Your task to perform on an android device: turn on sleep mode Image 0: 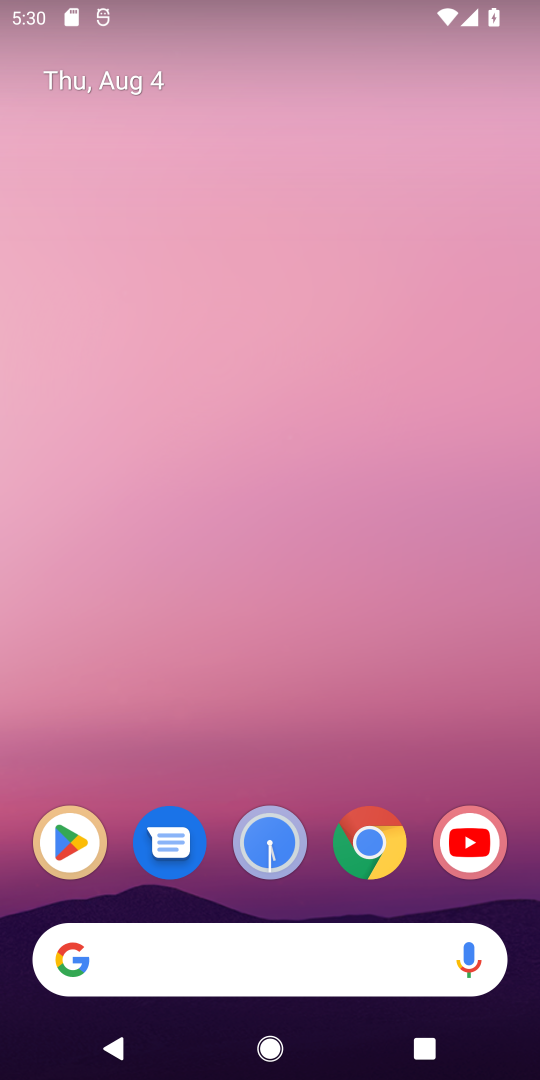
Step 0: drag from (339, 642) to (328, 285)
Your task to perform on an android device: turn on sleep mode Image 1: 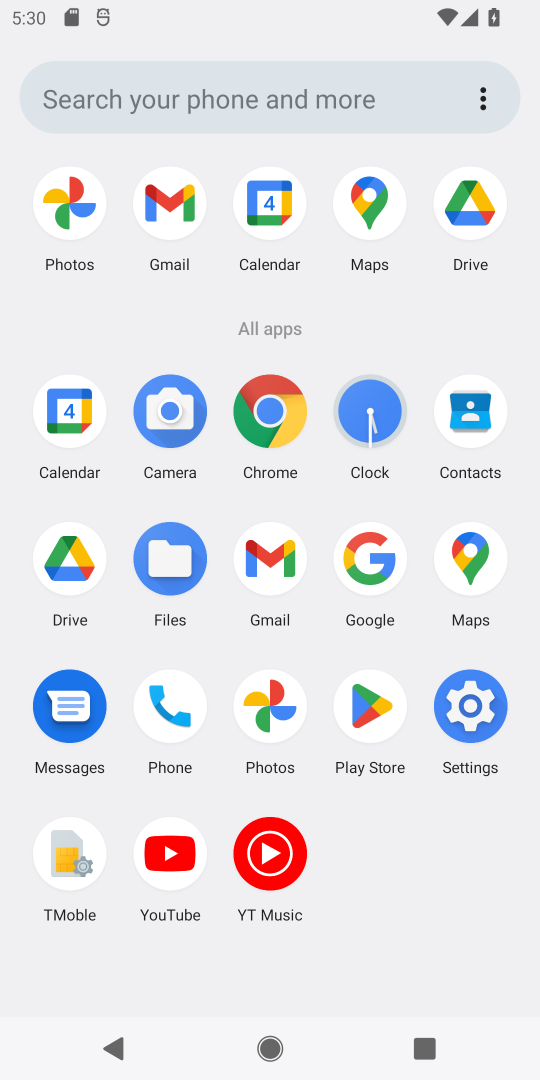
Step 1: drag from (472, 711) to (171, 333)
Your task to perform on an android device: turn on sleep mode Image 2: 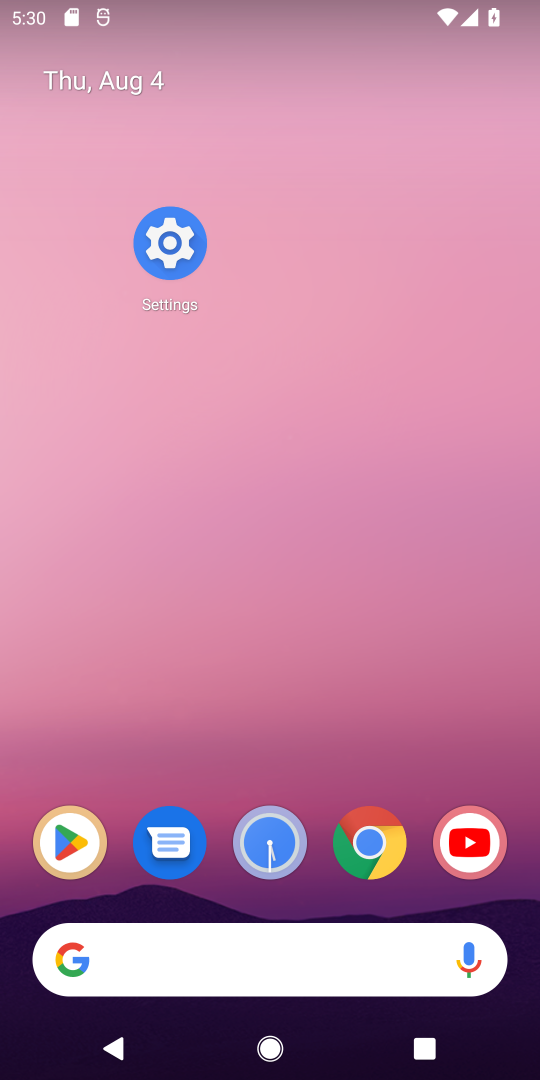
Step 2: click (180, 235)
Your task to perform on an android device: turn on sleep mode Image 3: 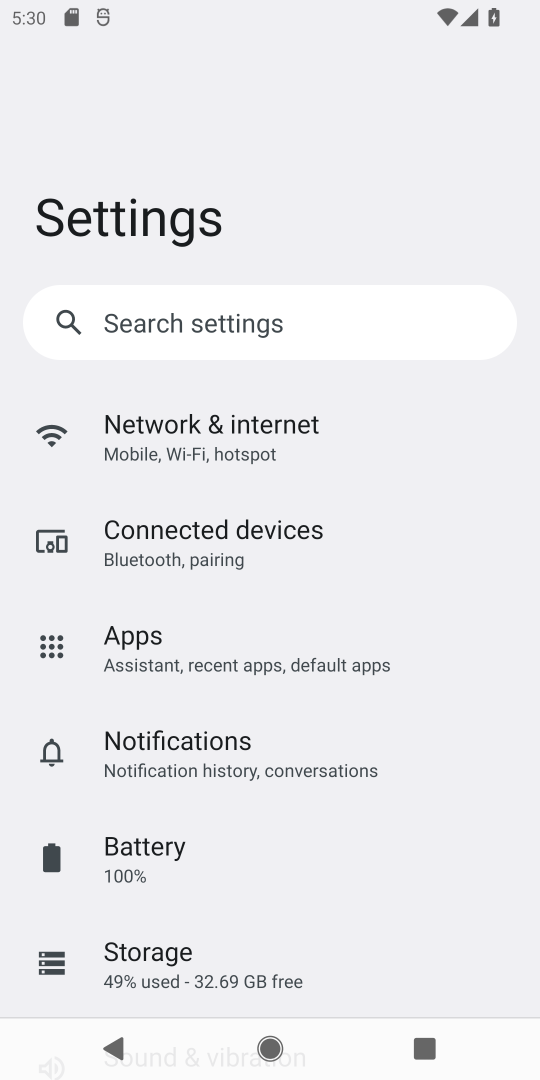
Step 3: drag from (265, 732) to (285, 415)
Your task to perform on an android device: turn on sleep mode Image 4: 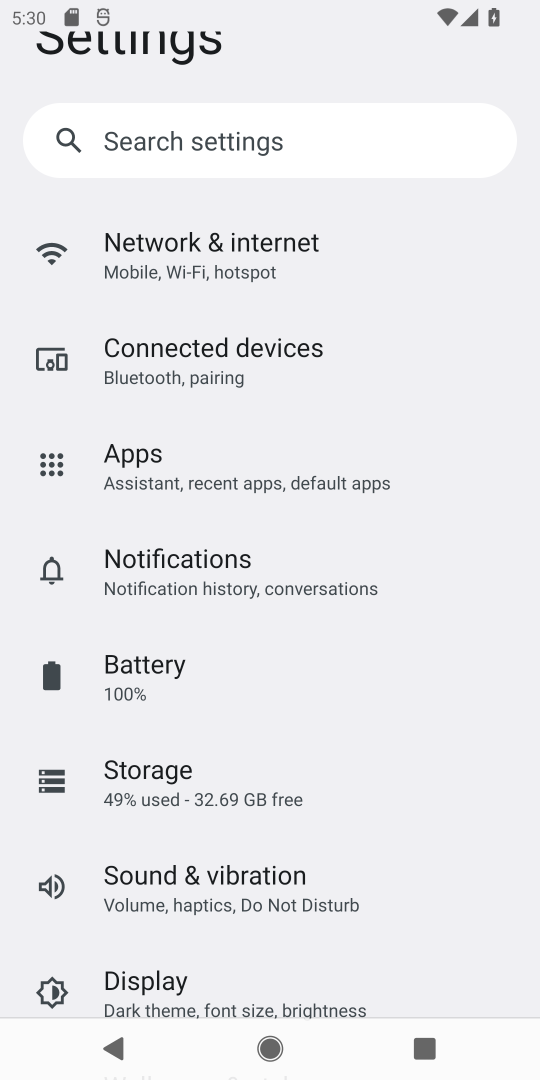
Step 4: drag from (307, 771) to (324, 404)
Your task to perform on an android device: turn on sleep mode Image 5: 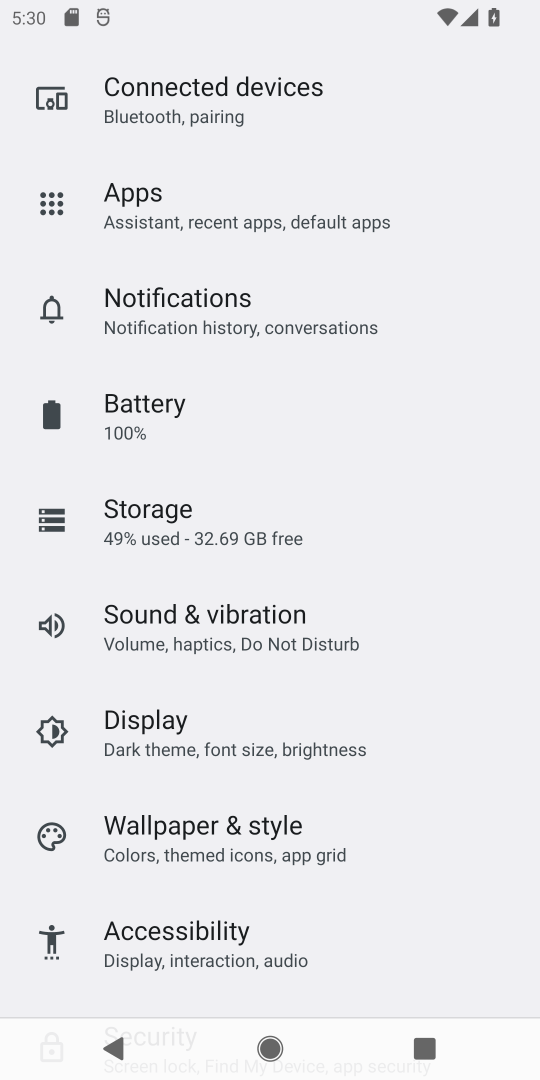
Step 5: drag from (336, 572) to (351, 272)
Your task to perform on an android device: turn on sleep mode Image 6: 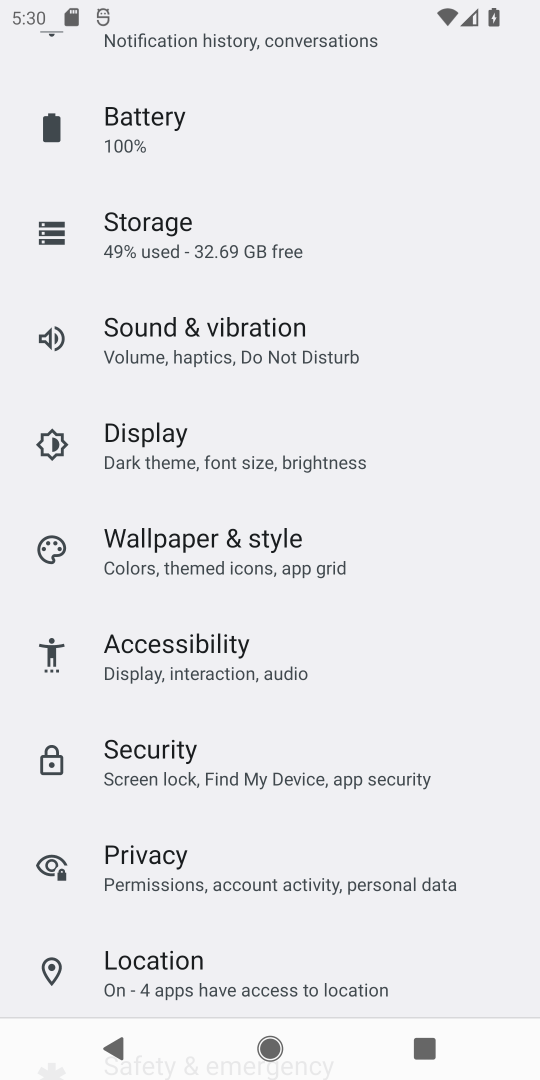
Step 6: drag from (353, 270) to (396, 478)
Your task to perform on an android device: turn on sleep mode Image 7: 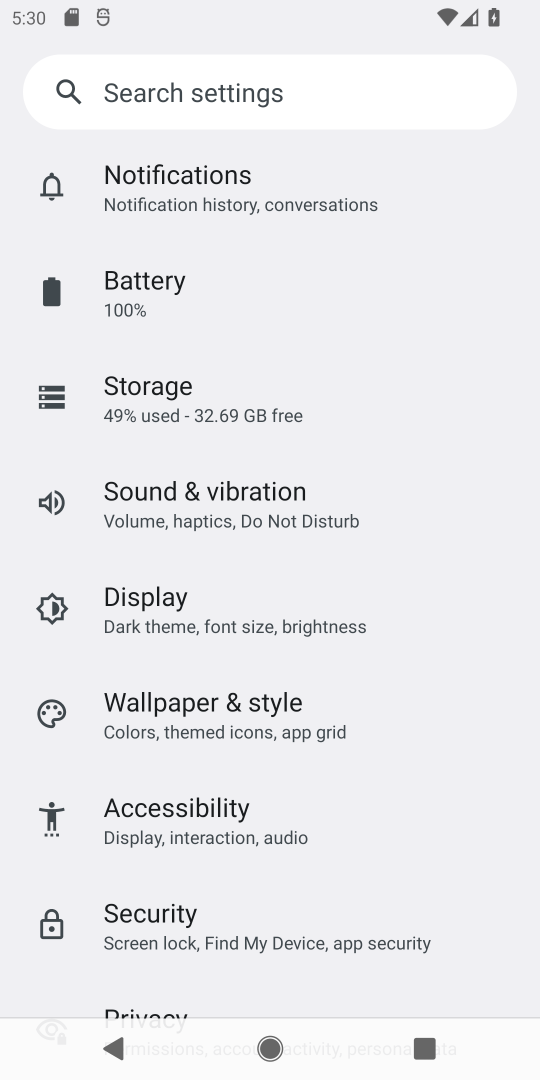
Step 7: drag from (355, 231) to (335, 619)
Your task to perform on an android device: turn on sleep mode Image 8: 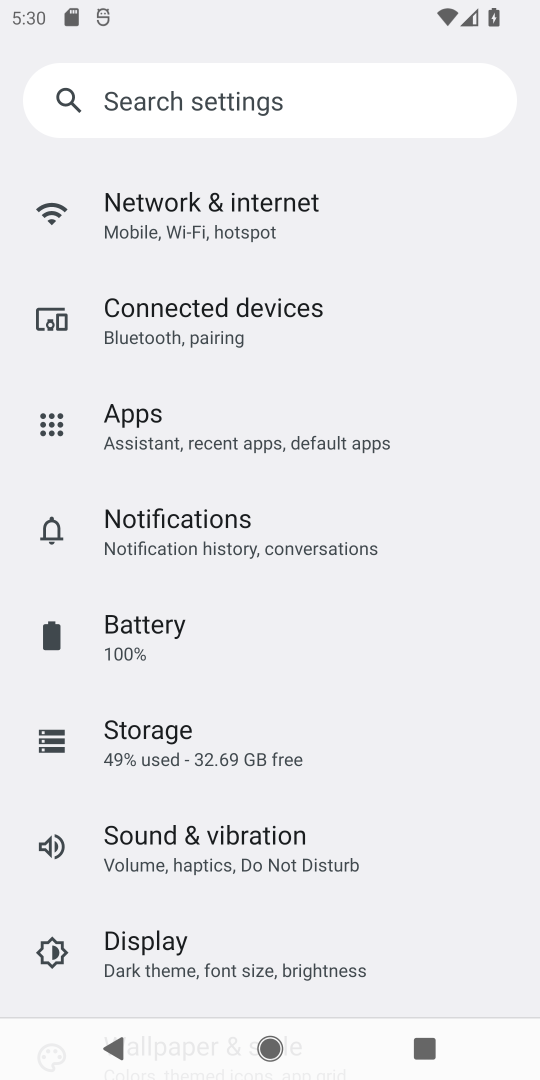
Step 8: drag from (331, 617) to (336, 382)
Your task to perform on an android device: turn on sleep mode Image 9: 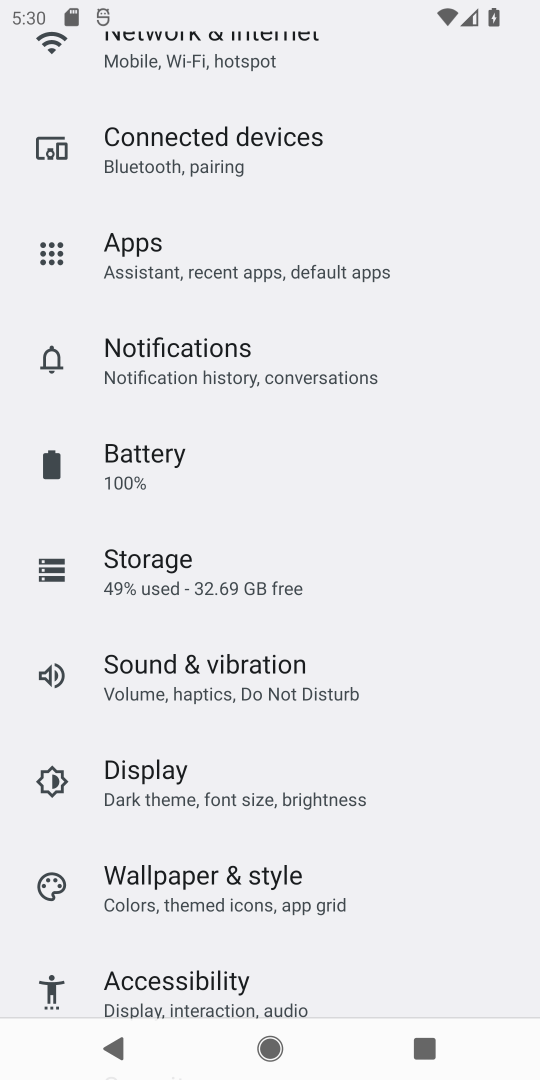
Step 9: drag from (359, 787) to (396, 289)
Your task to perform on an android device: turn on sleep mode Image 10: 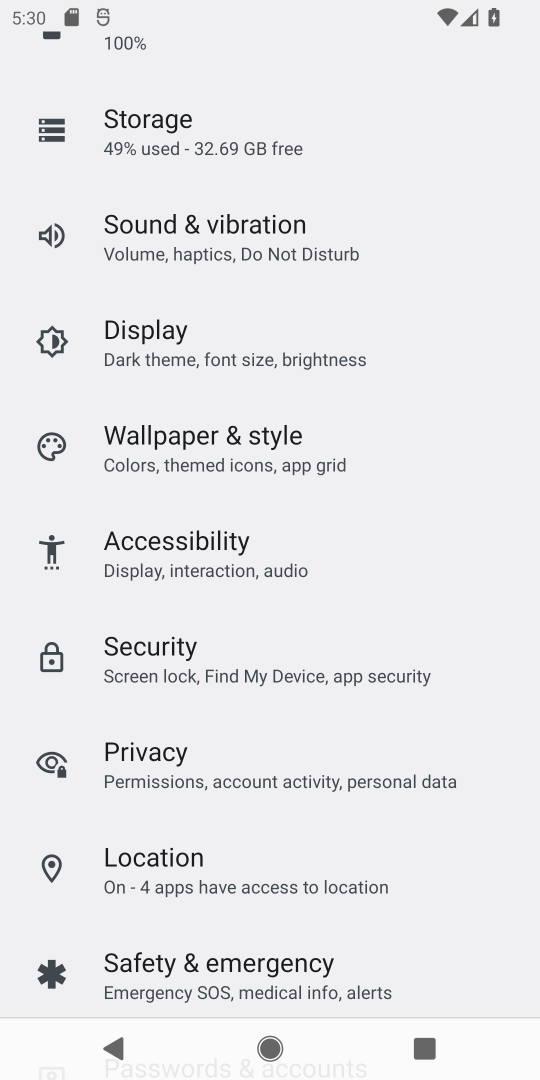
Step 10: click (269, 363)
Your task to perform on an android device: turn on sleep mode Image 11: 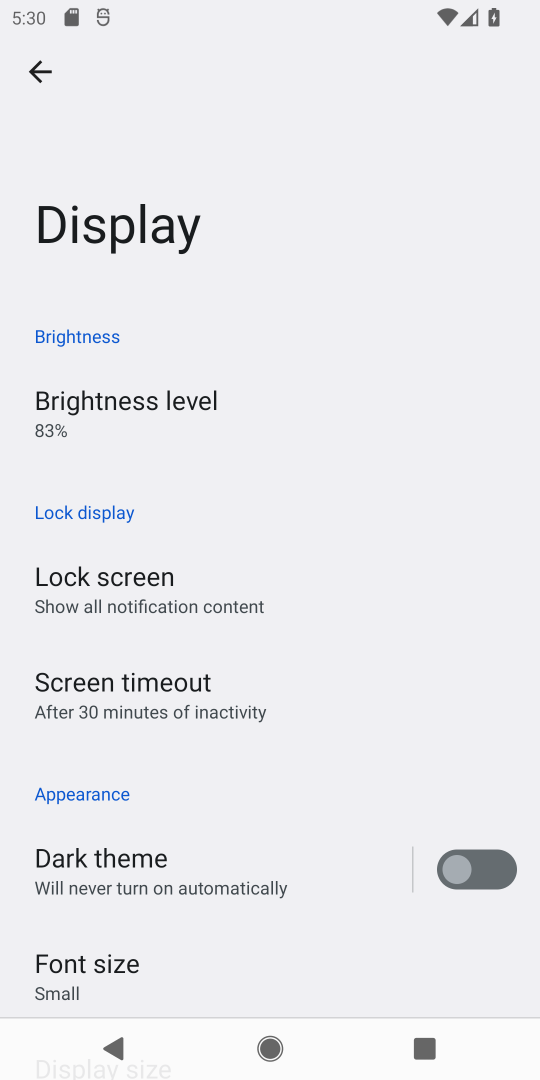
Step 11: click (334, 699)
Your task to perform on an android device: turn on sleep mode Image 12: 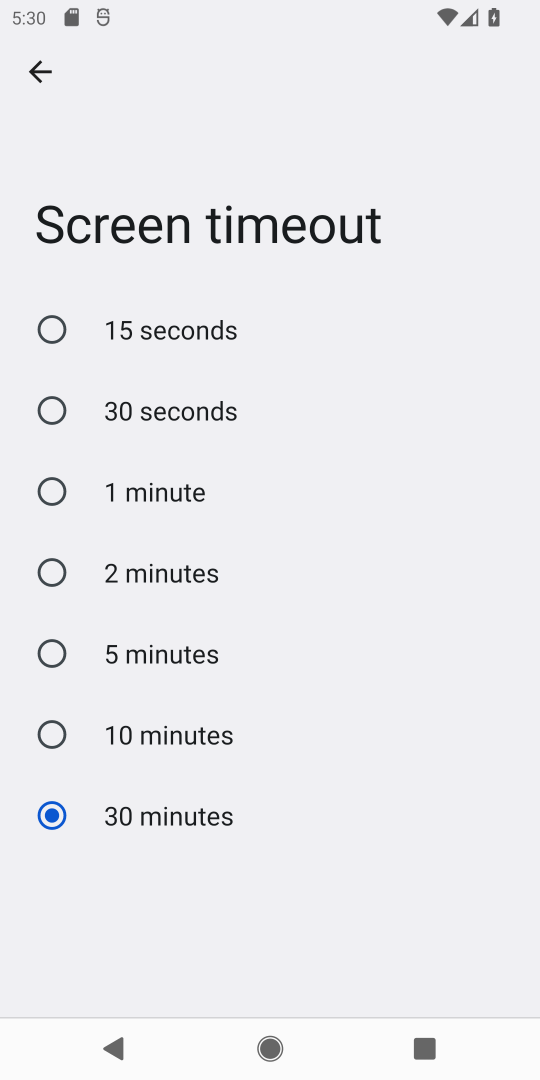
Step 12: task complete